Your task to perform on an android device: turn off javascript in the chrome app Image 0: 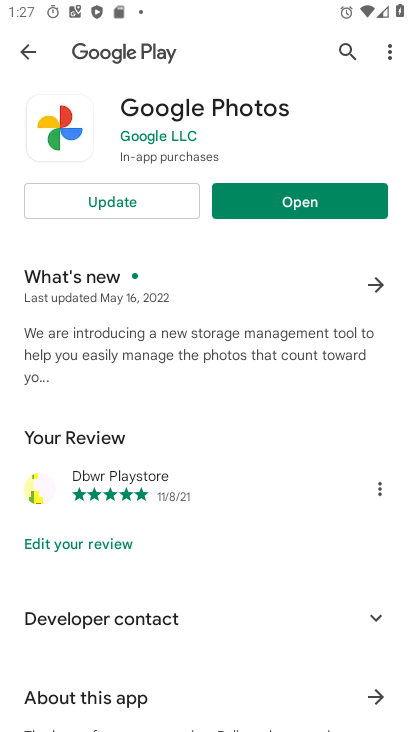
Step 0: press home button
Your task to perform on an android device: turn off javascript in the chrome app Image 1: 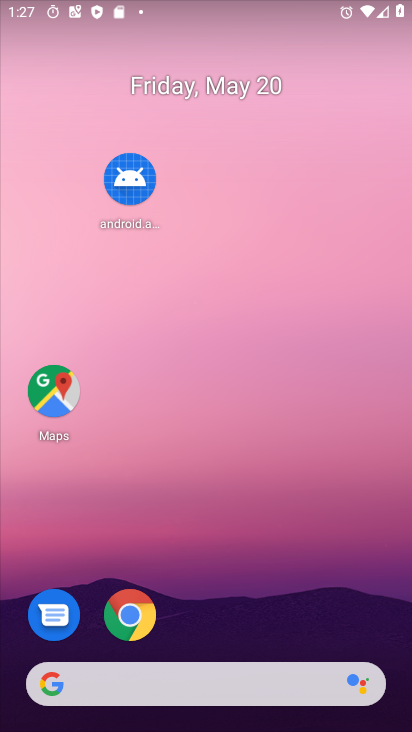
Step 1: click (138, 601)
Your task to perform on an android device: turn off javascript in the chrome app Image 2: 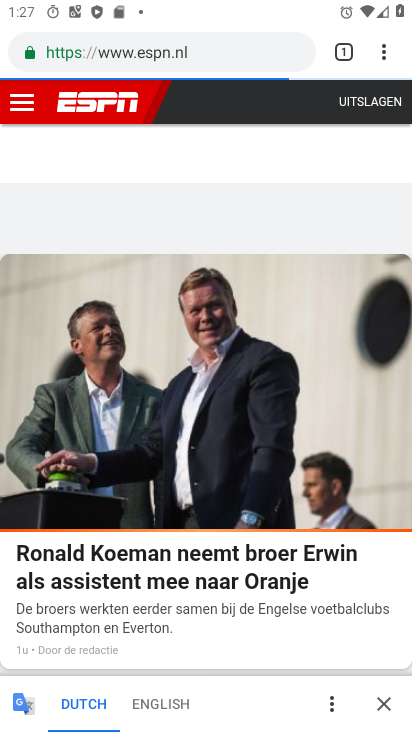
Step 2: click (390, 64)
Your task to perform on an android device: turn off javascript in the chrome app Image 3: 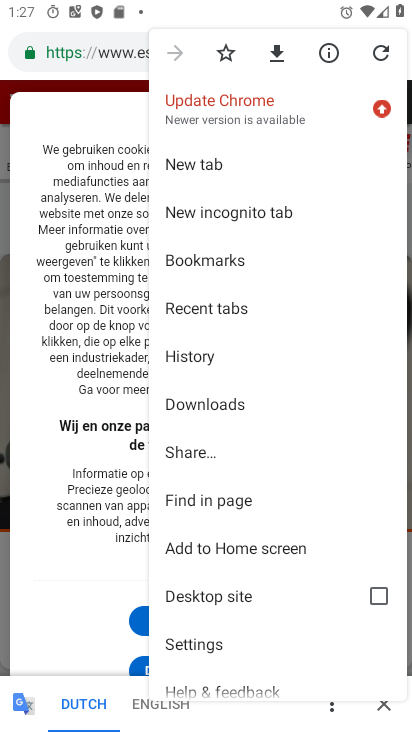
Step 3: click (186, 652)
Your task to perform on an android device: turn off javascript in the chrome app Image 4: 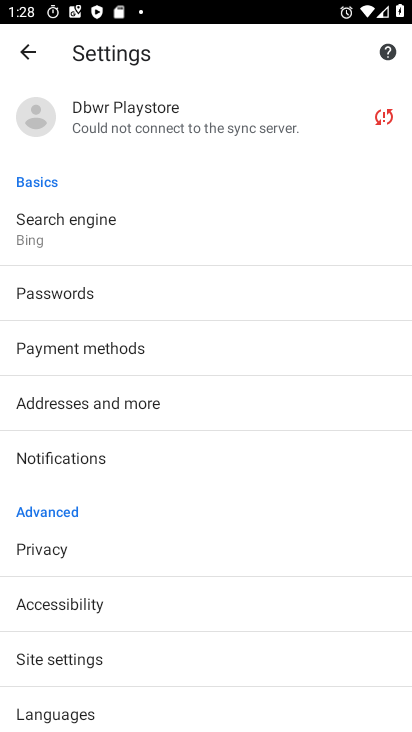
Step 4: click (160, 653)
Your task to perform on an android device: turn off javascript in the chrome app Image 5: 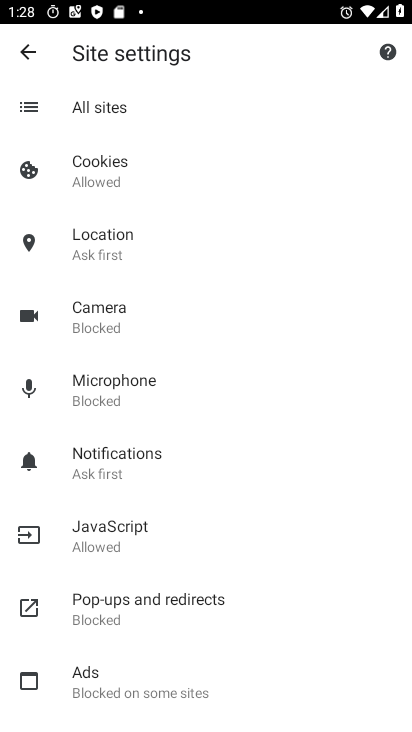
Step 5: click (96, 522)
Your task to perform on an android device: turn off javascript in the chrome app Image 6: 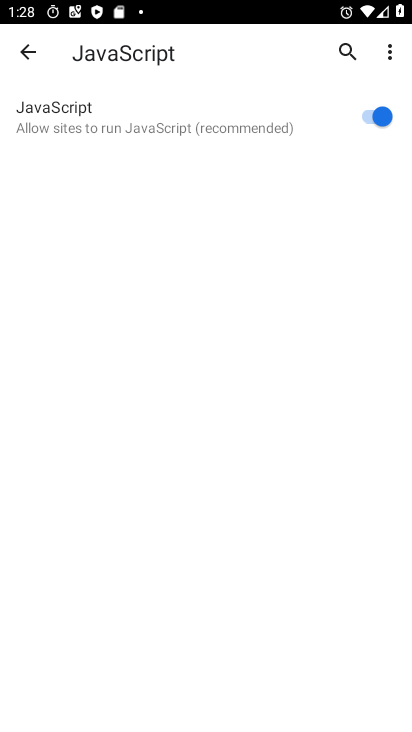
Step 6: click (381, 117)
Your task to perform on an android device: turn off javascript in the chrome app Image 7: 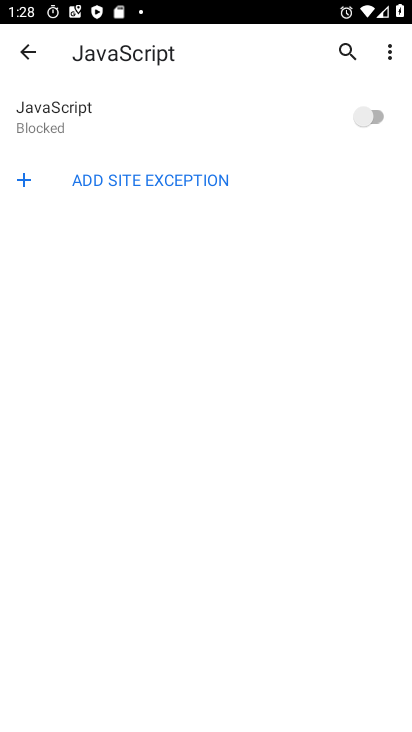
Step 7: task complete